Your task to perform on an android device: Go to accessibility settings Image 0: 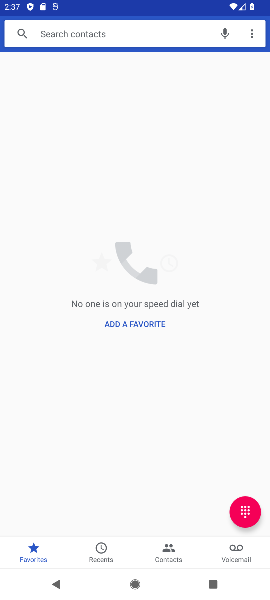
Step 0: press home button
Your task to perform on an android device: Go to accessibility settings Image 1: 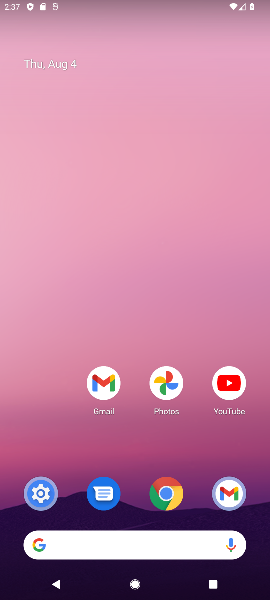
Step 1: drag from (155, 526) to (186, 283)
Your task to perform on an android device: Go to accessibility settings Image 2: 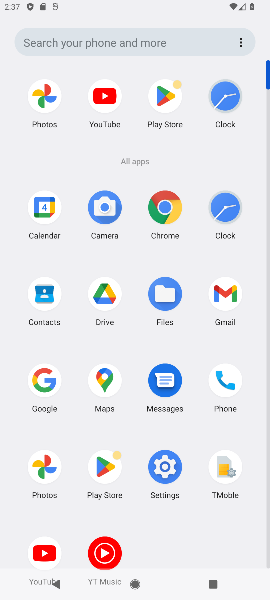
Step 2: click (163, 479)
Your task to perform on an android device: Go to accessibility settings Image 3: 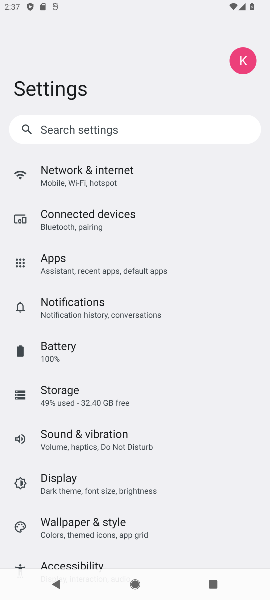
Step 3: drag from (103, 494) to (154, 262)
Your task to perform on an android device: Go to accessibility settings Image 4: 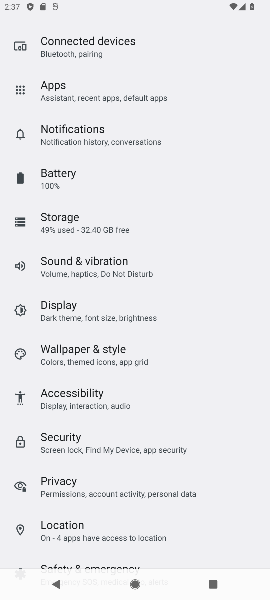
Step 4: click (84, 403)
Your task to perform on an android device: Go to accessibility settings Image 5: 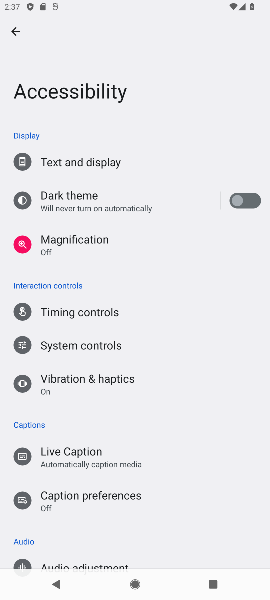
Step 5: task complete